Your task to perform on an android device: Turn on the flashlight Image 0: 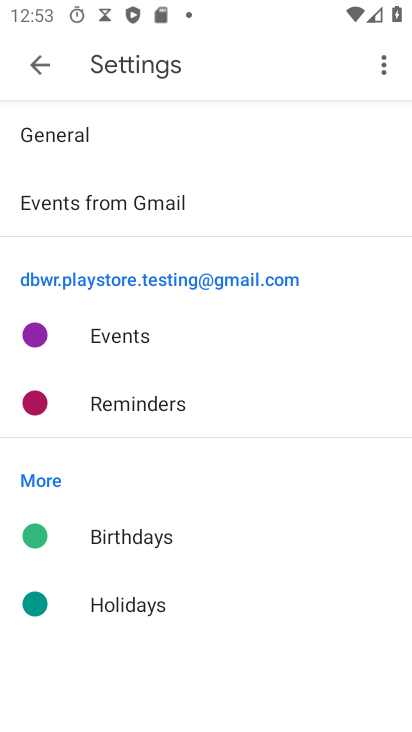
Step 0: press back button
Your task to perform on an android device: Turn on the flashlight Image 1: 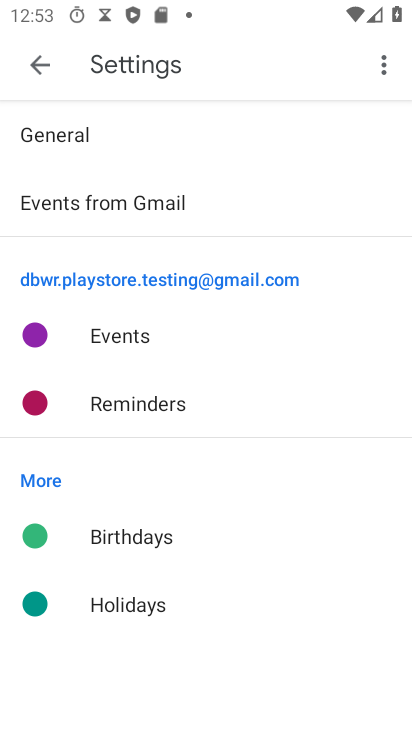
Step 1: task complete